Your task to perform on an android device: Search for bose soundsport free on newegg, select the first entry, add it to the cart, then select checkout. Image 0: 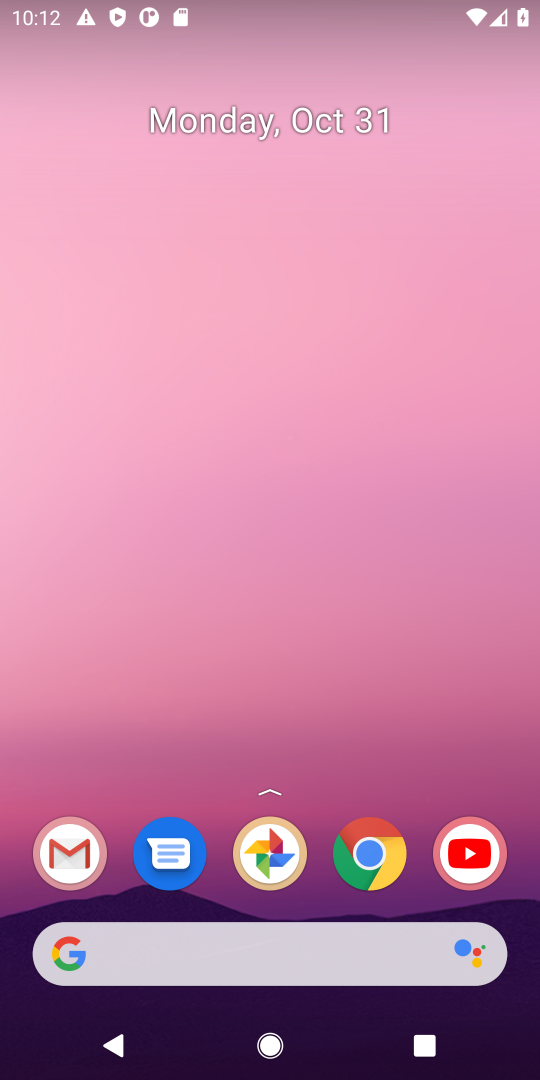
Step 0: click (272, 934)
Your task to perform on an android device: Search for bose soundsport free on newegg, select the first entry, add it to the cart, then select checkout. Image 1: 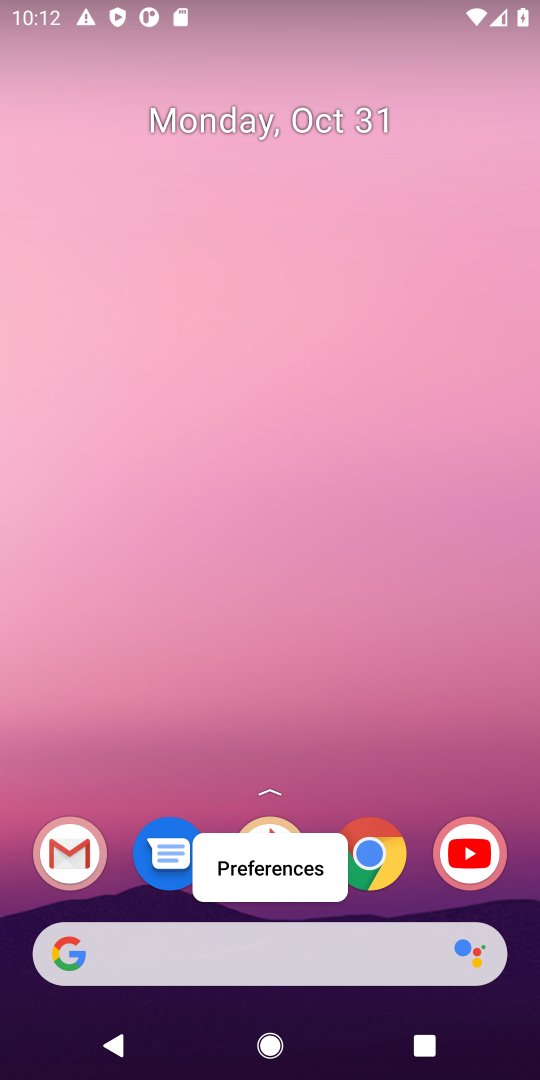
Step 1: click (246, 954)
Your task to perform on an android device: Search for bose soundsport free on newegg, select the first entry, add it to the cart, then select checkout. Image 2: 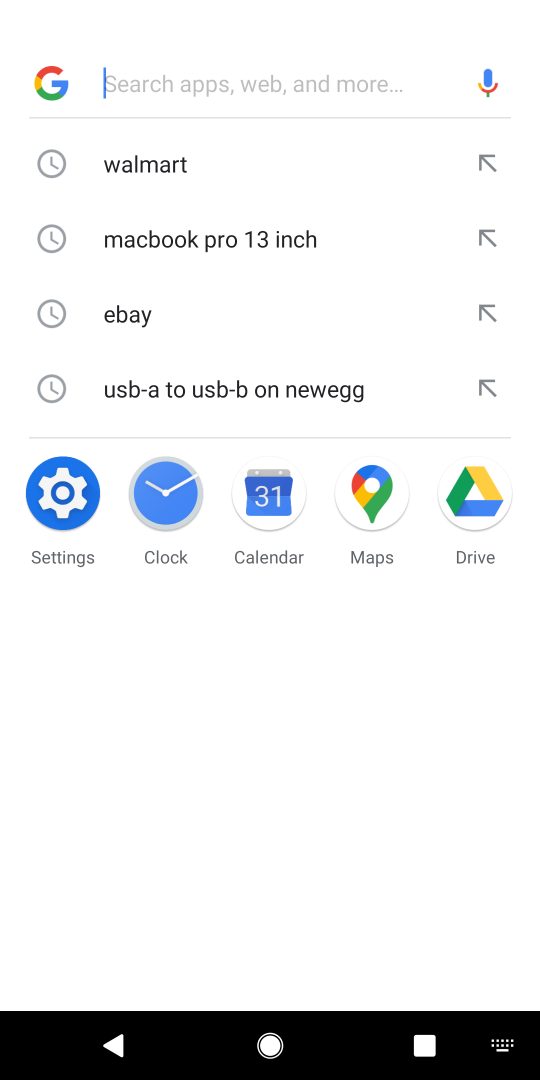
Step 2: type "newegg"
Your task to perform on an android device: Search for bose soundsport free on newegg, select the first entry, add it to the cart, then select checkout. Image 3: 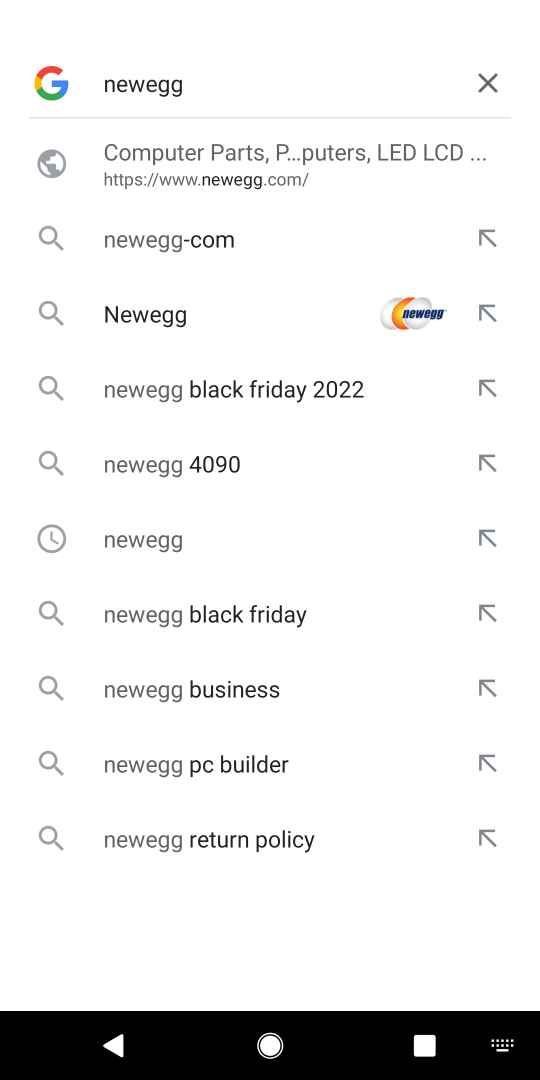
Step 3: type ""
Your task to perform on an android device: Search for bose soundsport free on newegg, select the first entry, add it to the cart, then select checkout. Image 4: 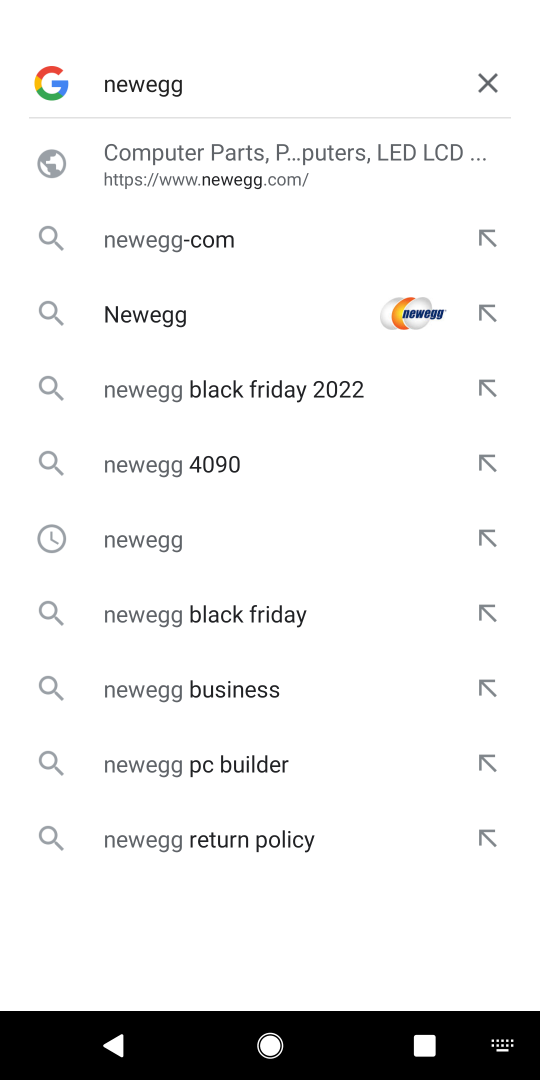
Step 4: press enter
Your task to perform on an android device: Search for bose soundsport free on newegg, select the first entry, add it to the cart, then select checkout. Image 5: 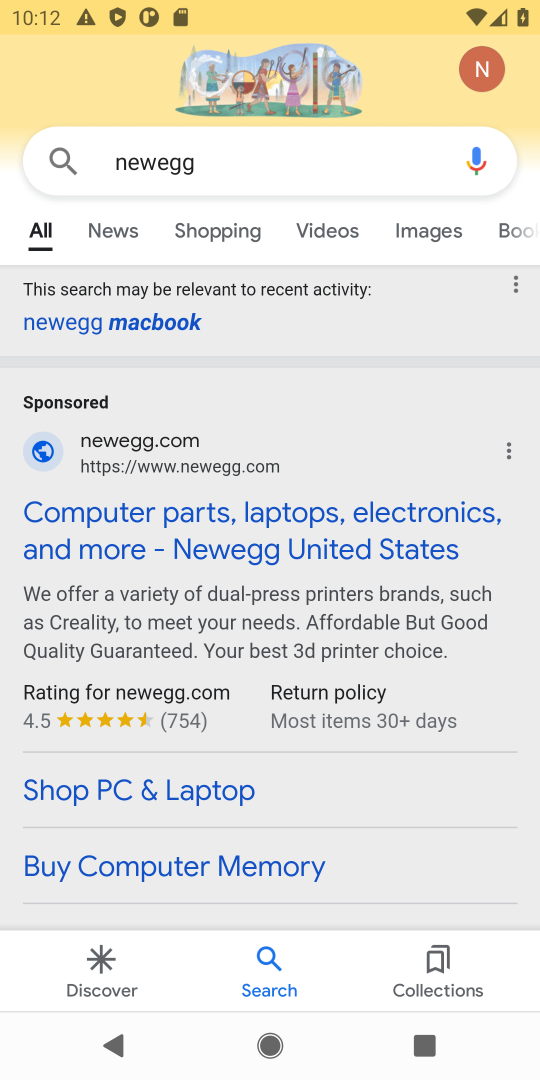
Step 5: click (202, 511)
Your task to perform on an android device: Search for bose soundsport free on newegg, select the first entry, add it to the cart, then select checkout. Image 6: 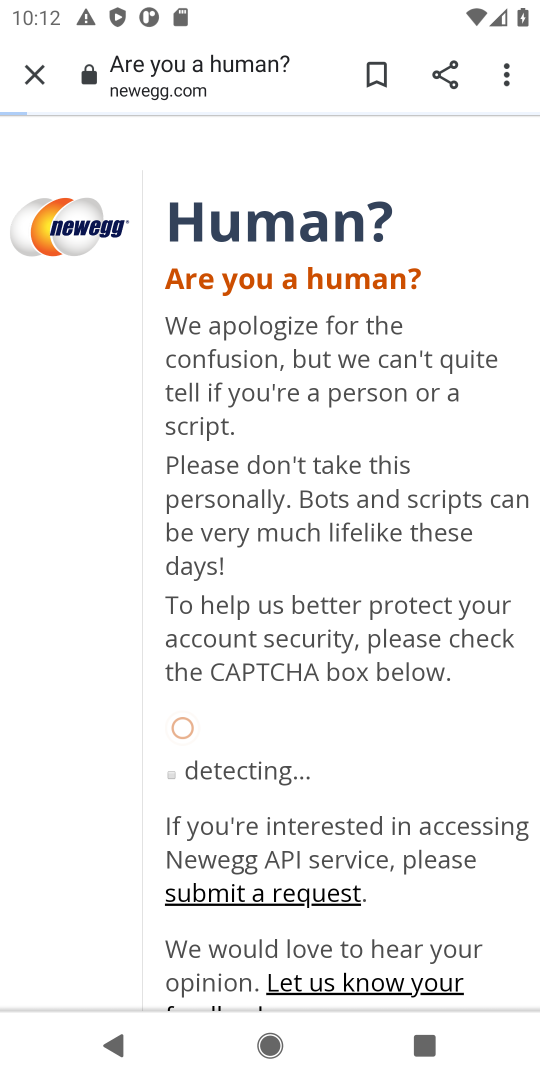
Step 6: click (318, 777)
Your task to perform on an android device: Search for bose soundsport free on newegg, select the first entry, add it to the cart, then select checkout. Image 7: 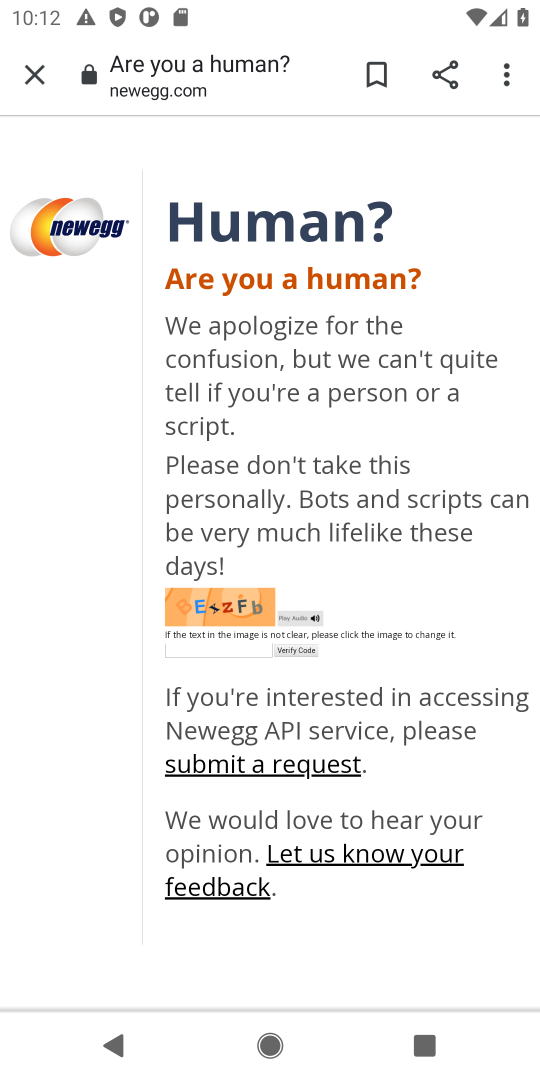
Step 7: click (187, 653)
Your task to perform on an android device: Search for bose soundsport free on newegg, select the first entry, add it to the cart, then select checkout. Image 8: 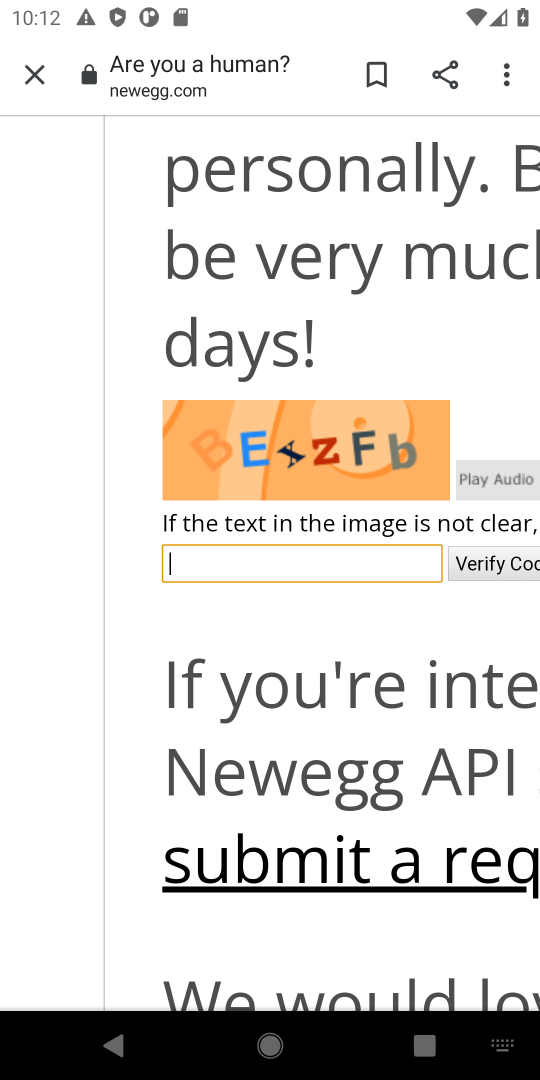
Step 8: click (252, 556)
Your task to perform on an android device: Search for bose soundsport free on newegg, select the first entry, add it to the cart, then select checkout. Image 9: 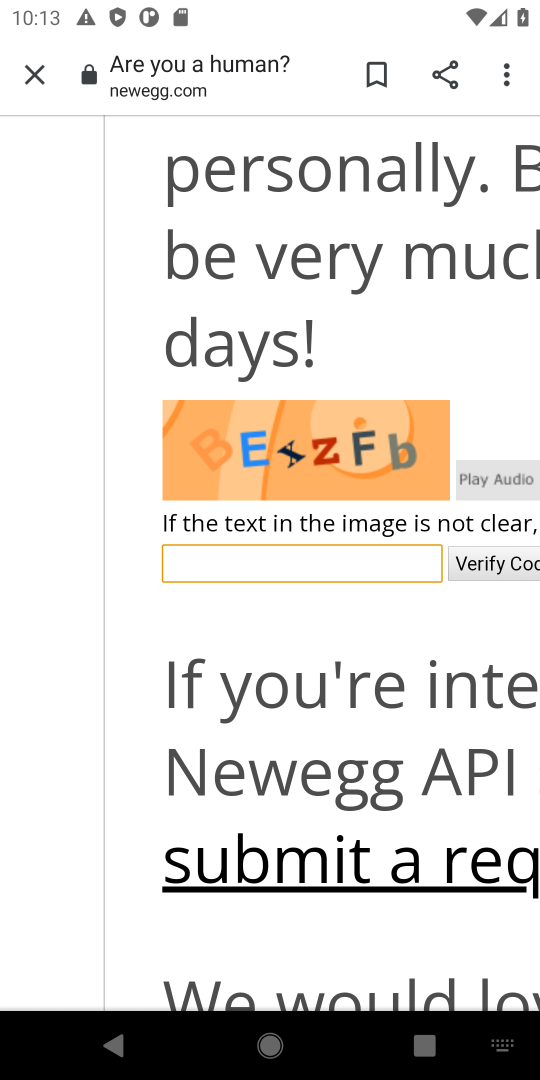
Step 9: type "ExzFb"
Your task to perform on an android device: Search for bose soundsport free on newegg, select the first entry, add it to the cart, then select checkout. Image 10: 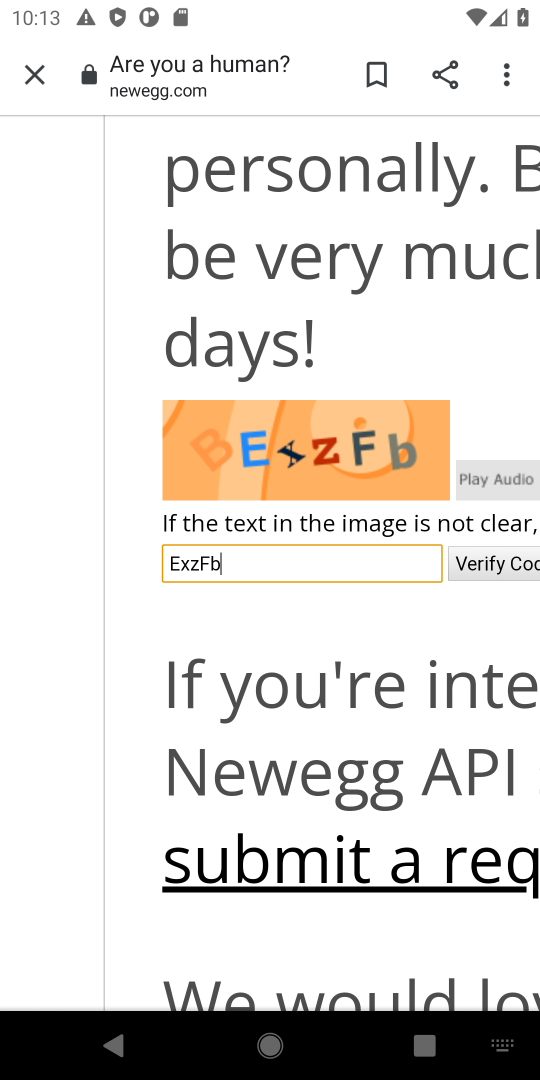
Step 10: type ""
Your task to perform on an android device: Search for bose soundsport free on newegg, select the first entry, add it to the cart, then select checkout. Image 11: 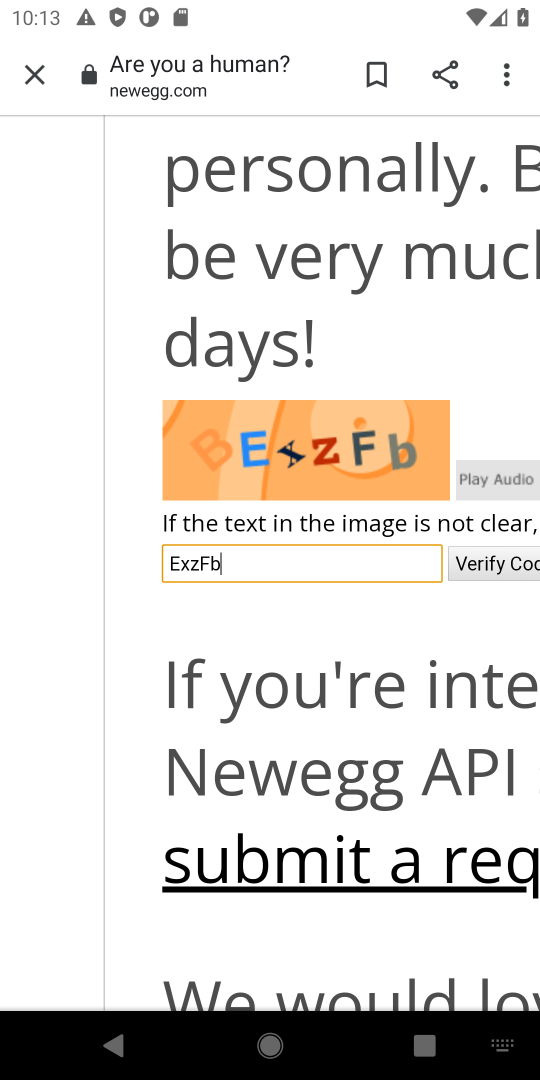
Step 11: click (471, 566)
Your task to perform on an android device: Search for bose soundsport free on newegg, select the first entry, add it to the cart, then select checkout. Image 12: 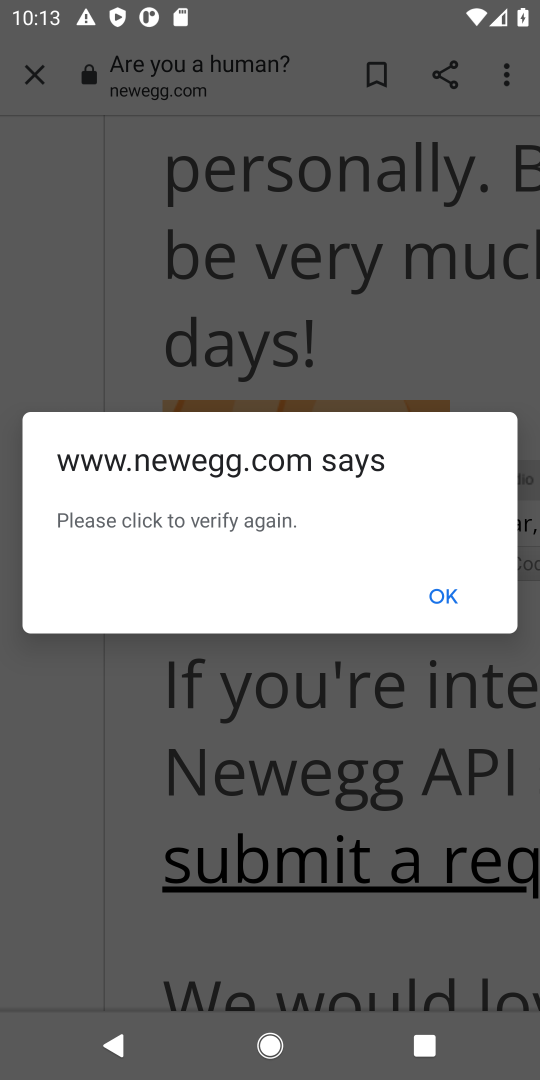
Step 12: click (448, 603)
Your task to perform on an android device: Search for bose soundsport free on newegg, select the first entry, add it to the cart, then select checkout. Image 13: 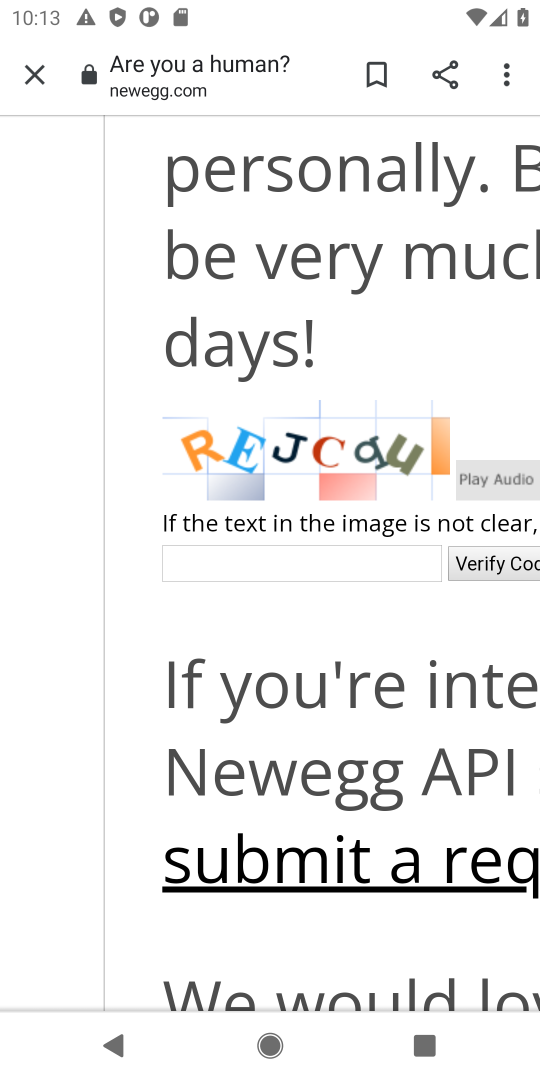
Step 13: click (446, 599)
Your task to perform on an android device: Search for bose soundsport free on newegg, select the first entry, add it to the cart, then select checkout. Image 14: 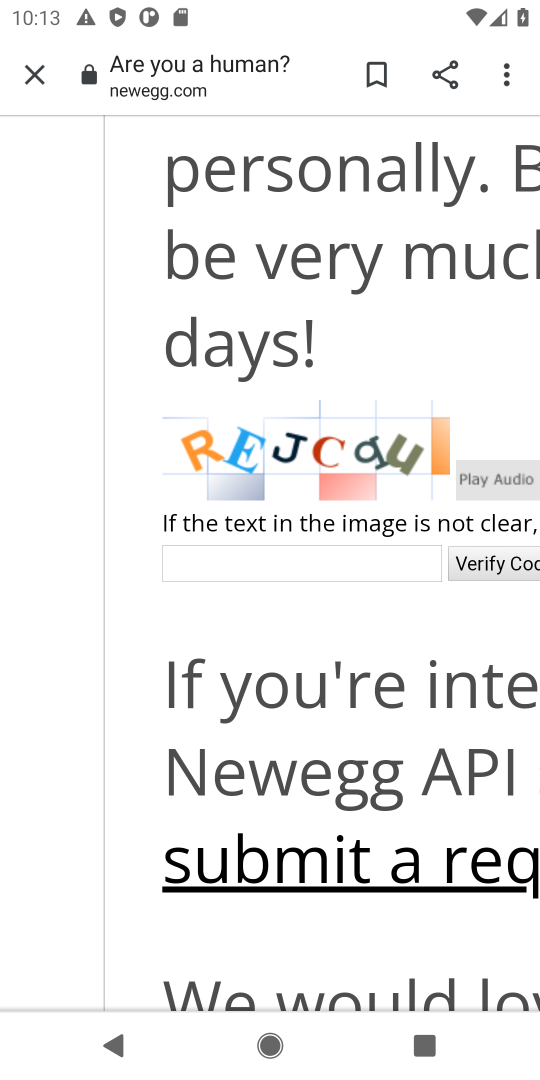
Step 14: click (293, 578)
Your task to perform on an android device: Search for bose soundsport free on newegg, select the first entry, add it to the cart, then select checkout. Image 15: 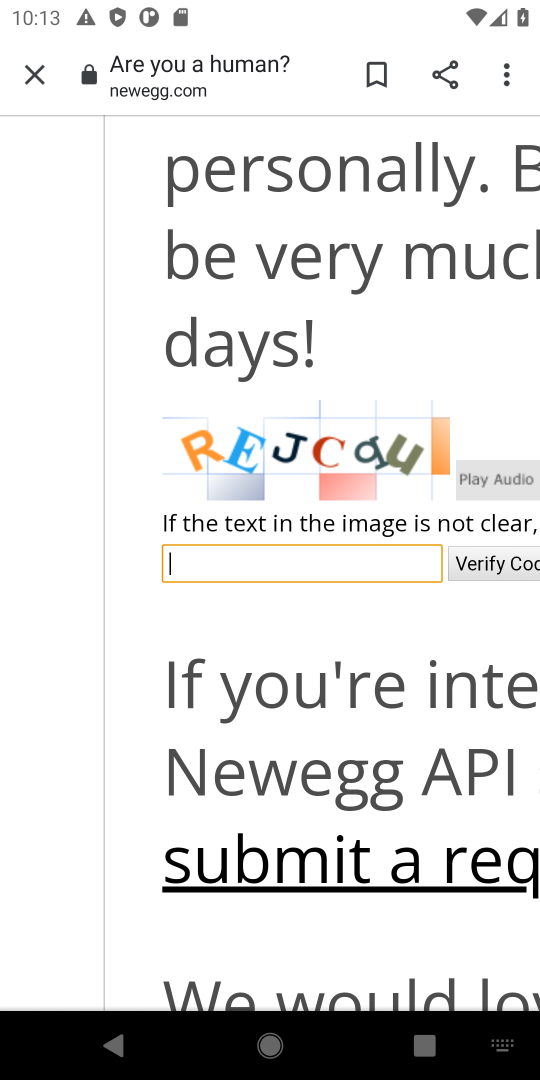
Step 15: click (244, 494)
Your task to perform on an android device: Search for bose soundsport free on newegg, select the first entry, add it to the cart, then select checkout. Image 16: 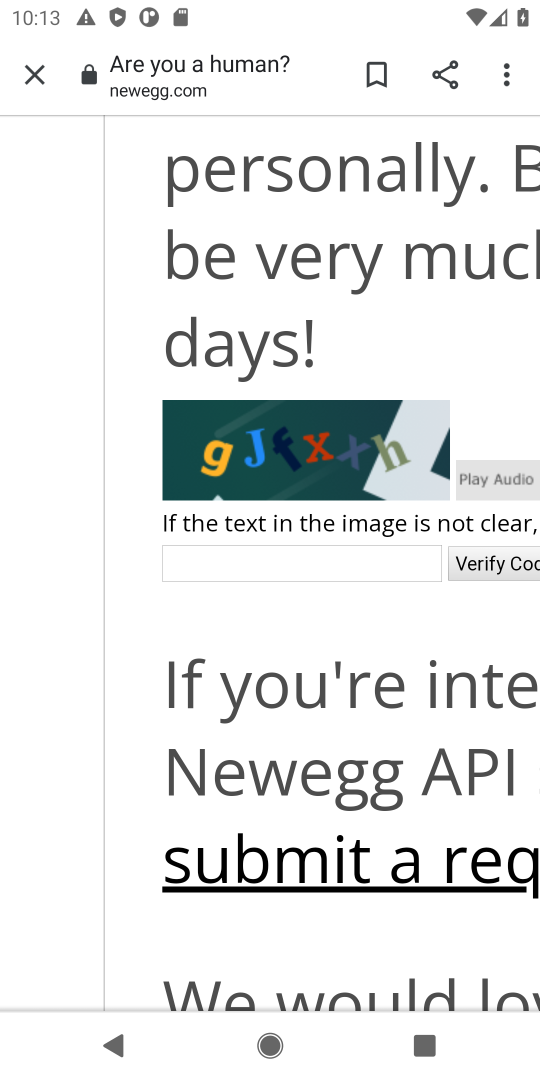
Step 16: click (353, 445)
Your task to perform on an android device: Search for bose soundsport free on newegg, select the first entry, add it to the cart, then select checkout. Image 17: 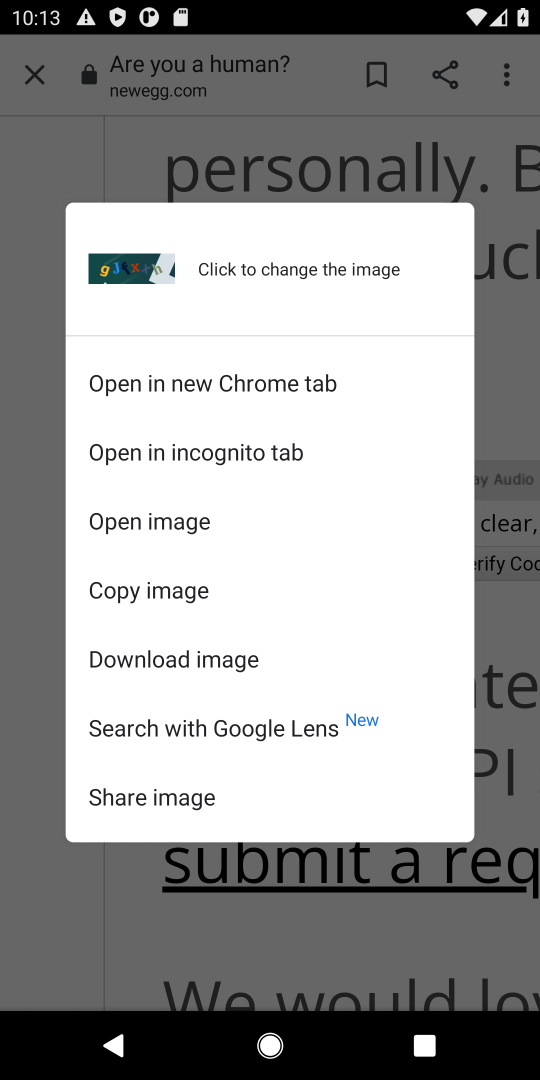
Step 17: click (492, 599)
Your task to perform on an android device: Search for bose soundsport free on newegg, select the first entry, add it to the cart, then select checkout. Image 18: 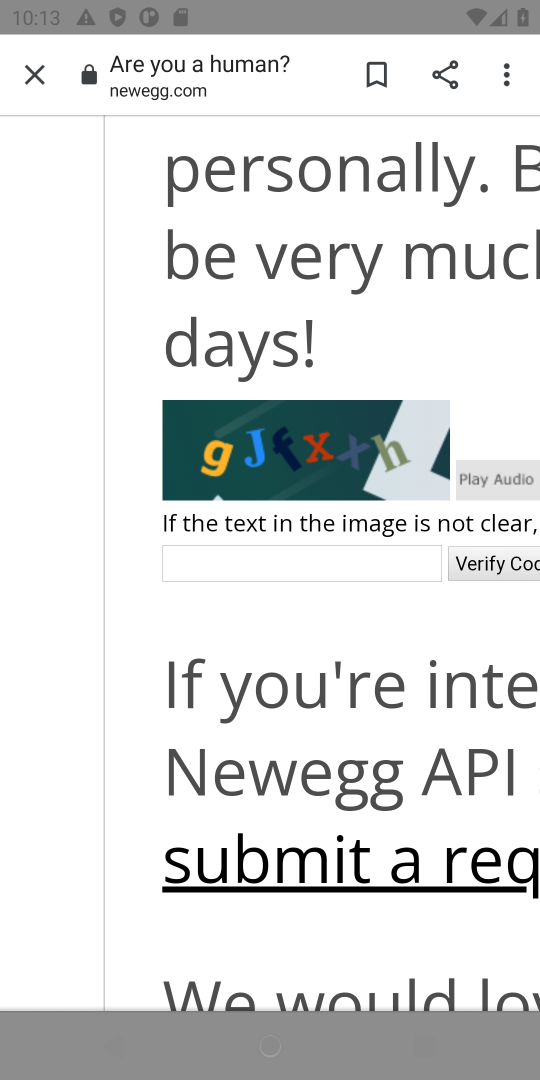
Step 18: click (493, 599)
Your task to perform on an android device: Search for bose soundsport free on newegg, select the first entry, add it to the cart, then select checkout. Image 19: 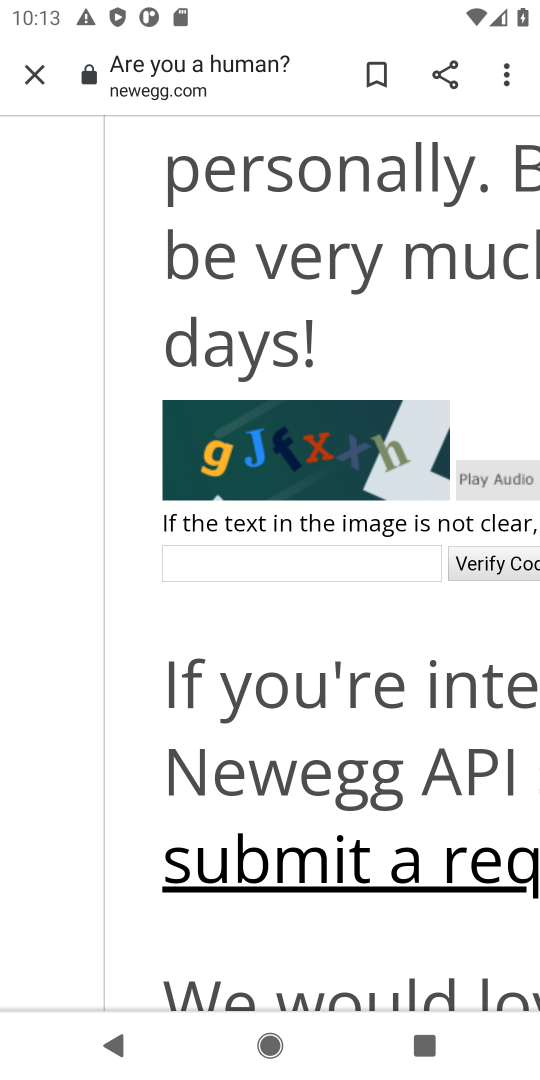
Step 19: click (273, 572)
Your task to perform on an android device: Search for bose soundsport free on newegg, select the first entry, add it to the cart, then select checkout. Image 20: 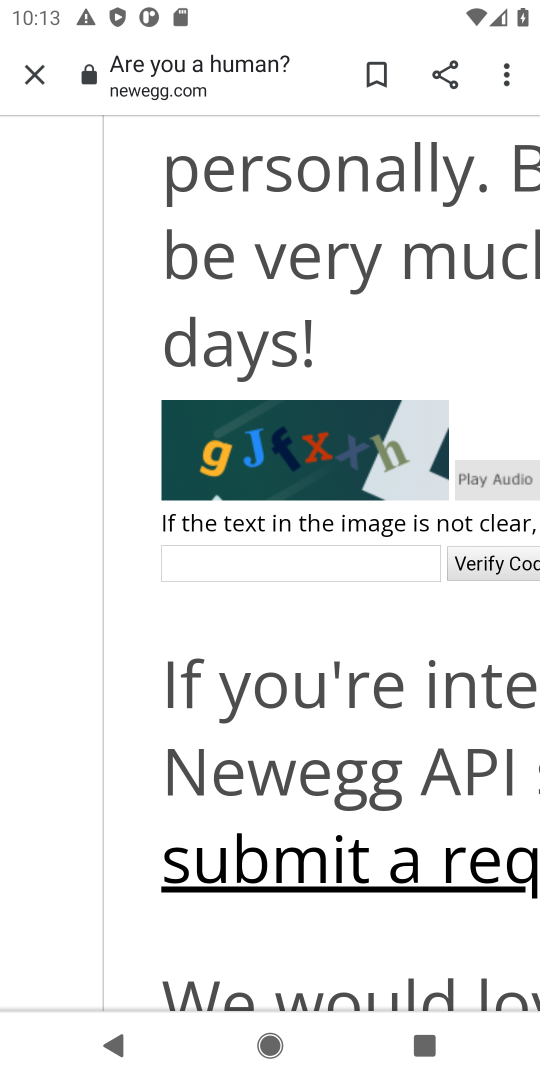
Step 20: click (257, 566)
Your task to perform on an android device: Search for bose soundsport free on newegg, select the first entry, add it to the cart, then select checkout. Image 21: 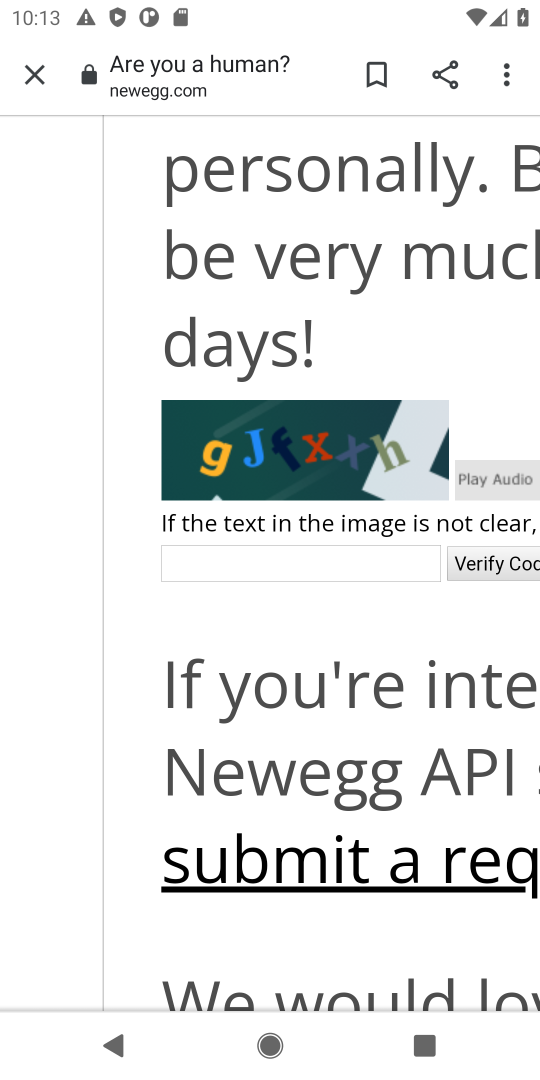
Step 21: click (257, 567)
Your task to perform on an android device: Search for bose soundsport free on newegg, select the first entry, add it to the cart, then select checkout. Image 22: 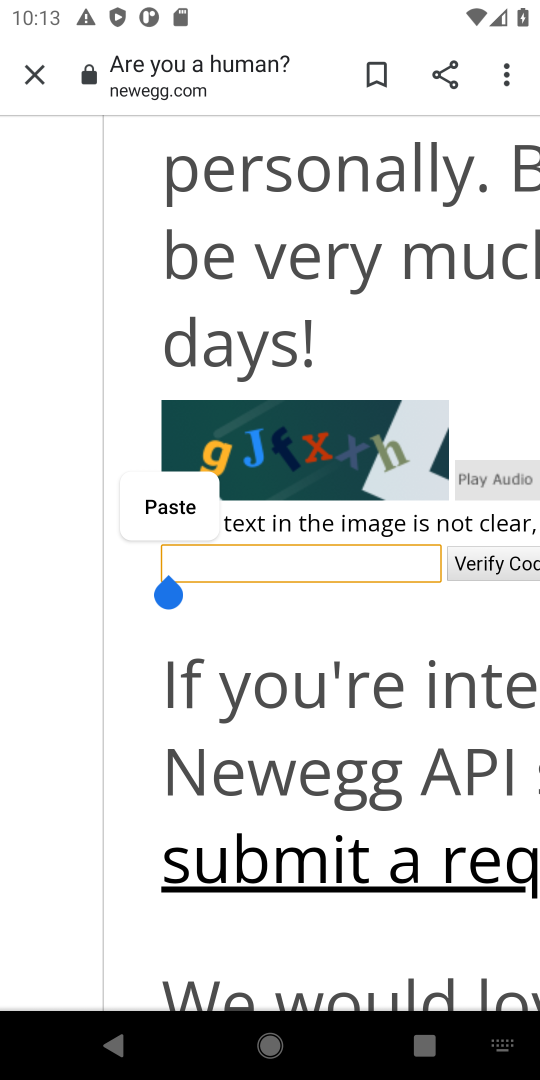
Step 22: type "gJfXxh"
Your task to perform on an android device: Search for bose soundsport free on newegg, select the first entry, add it to the cart, then select checkout. Image 23: 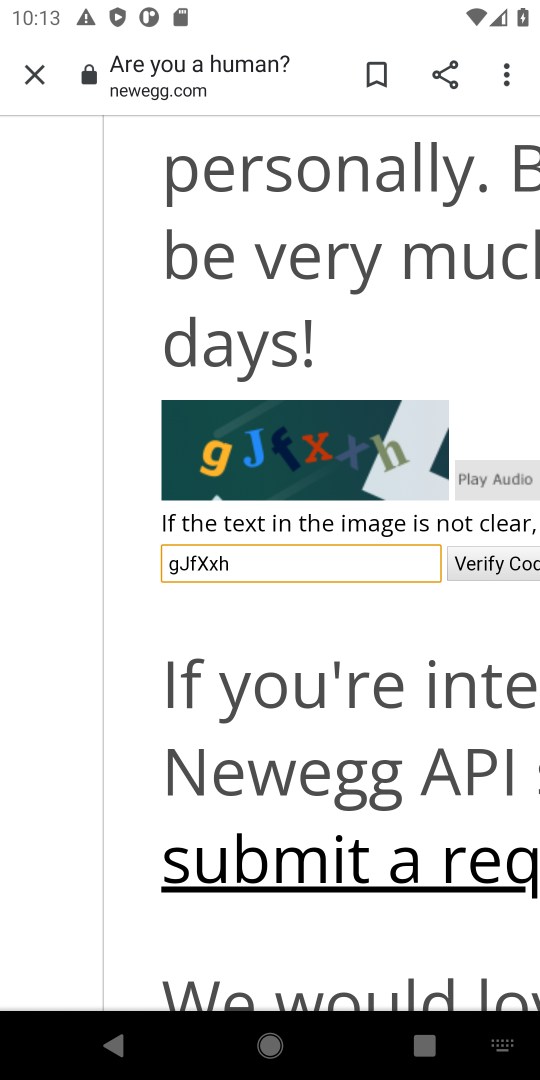
Step 23: type ""
Your task to perform on an android device: Search for bose soundsport free on newegg, select the first entry, add it to the cart, then select checkout. Image 24: 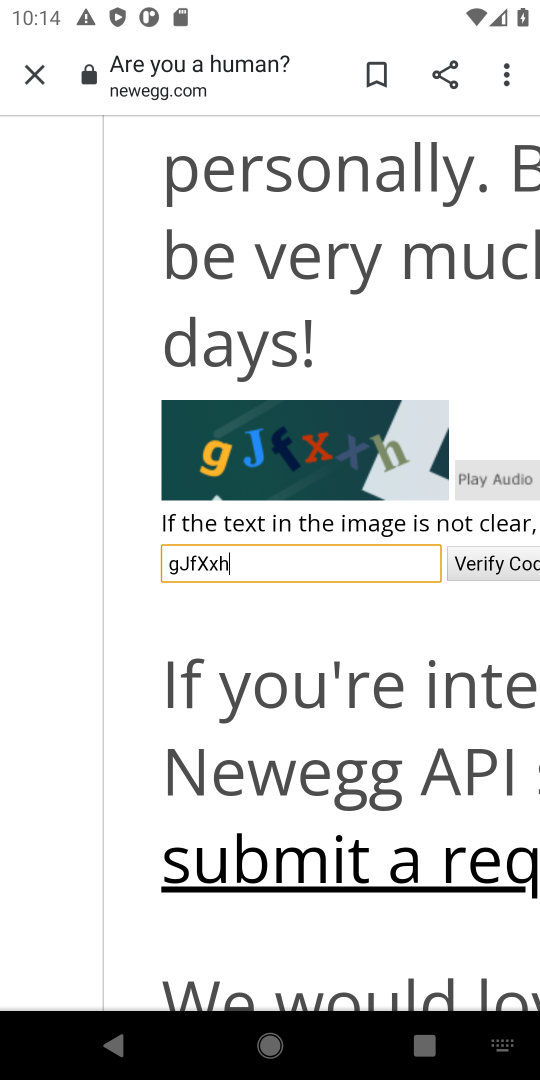
Step 24: click (488, 566)
Your task to perform on an android device: Search for bose soundsport free on newegg, select the first entry, add it to the cart, then select checkout. Image 25: 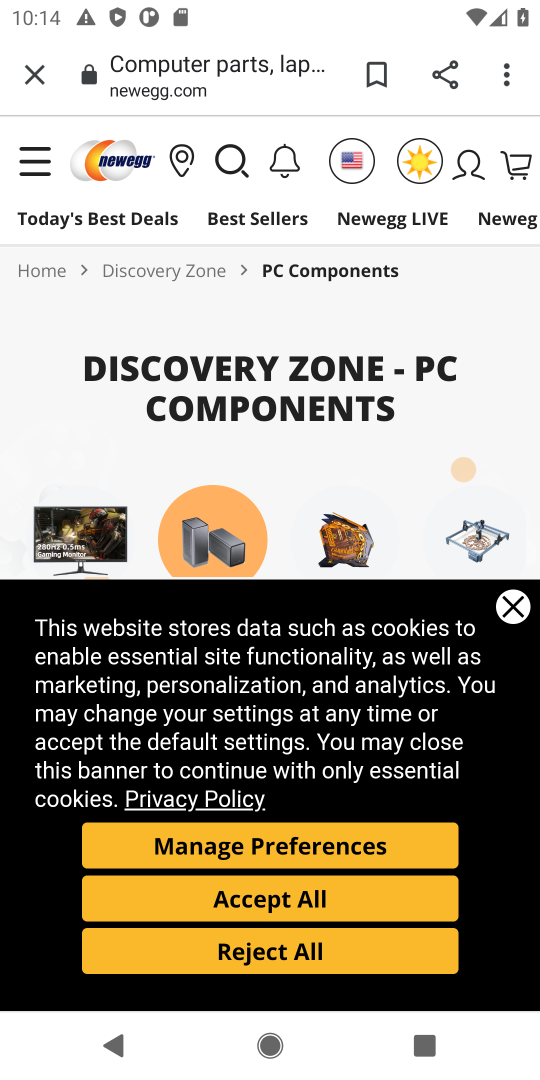
Step 25: click (283, 947)
Your task to perform on an android device: Search for bose soundsport free on newegg, select the first entry, add it to the cart, then select checkout. Image 26: 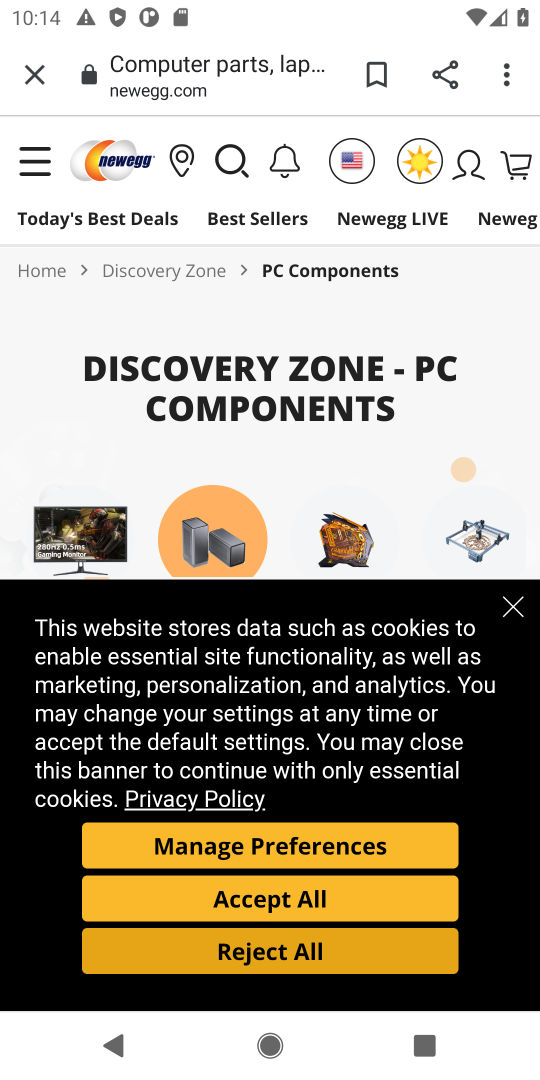
Step 26: click (283, 947)
Your task to perform on an android device: Search for bose soundsport free on newegg, select the first entry, add it to the cart, then select checkout. Image 27: 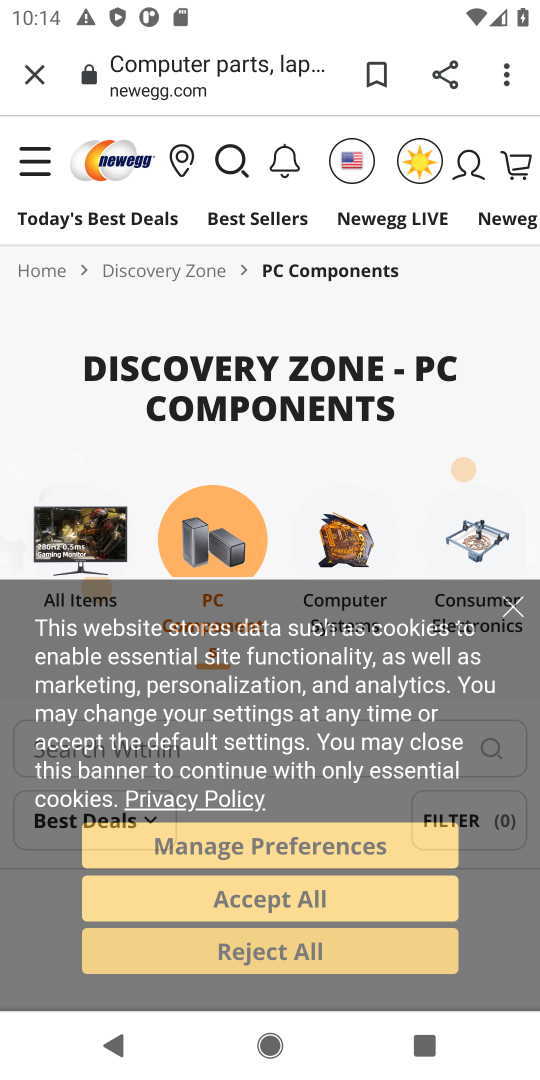
Step 27: click (283, 947)
Your task to perform on an android device: Search for bose soundsport free on newegg, select the first entry, add it to the cart, then select checkout. Image 28: 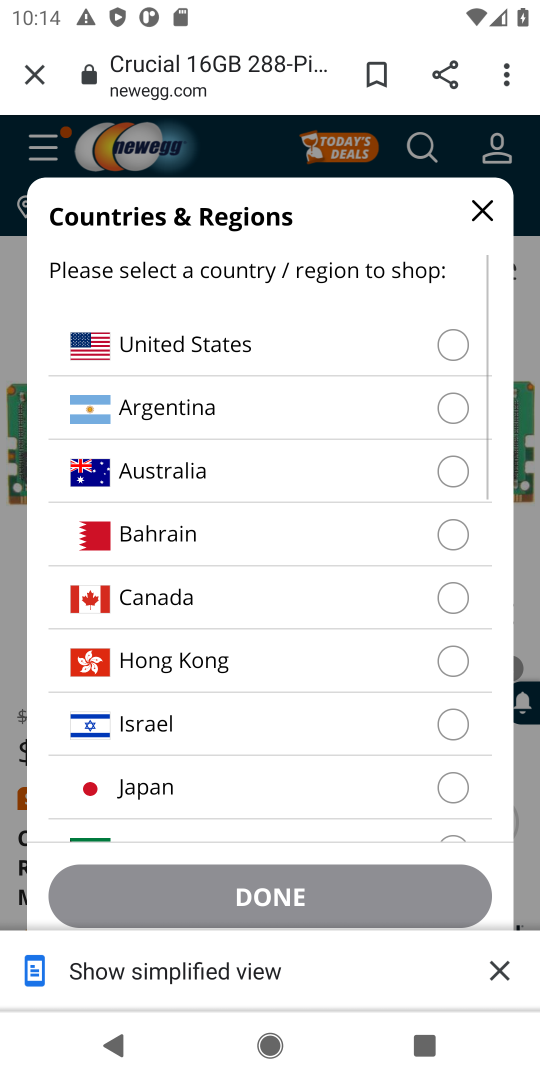
Step 28: click (511, 974)
Your task to perform on an android device: Search for bose soundsport free on newegg, select the first entry, add it to the cart, then select checkout. Image 29: 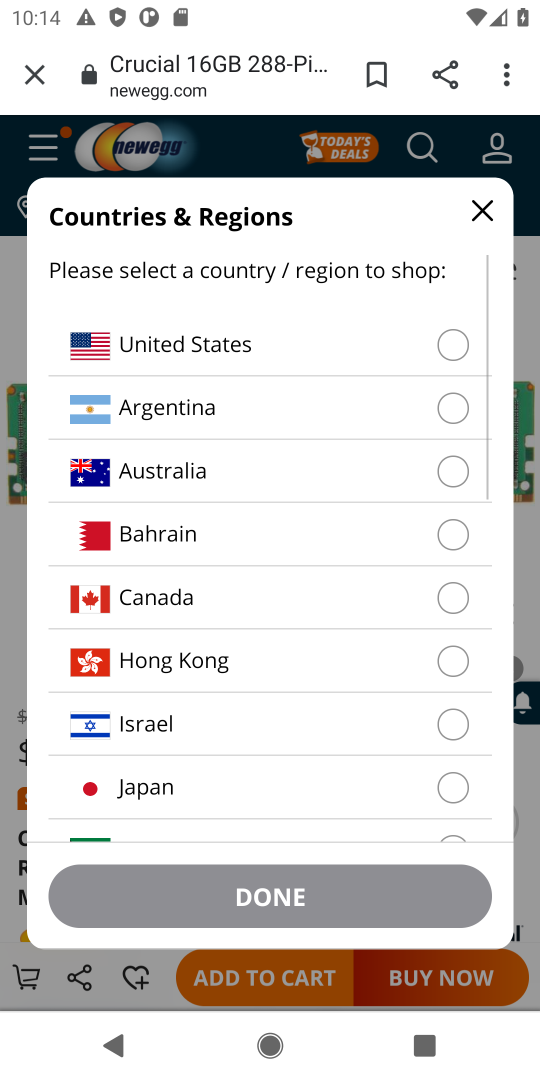
Step 29: click (451, 350)
Your task to perform on an android device: Search for bose soundsport free on newegg, select the first entry, add it to the cart, then select checkout. Image 30: 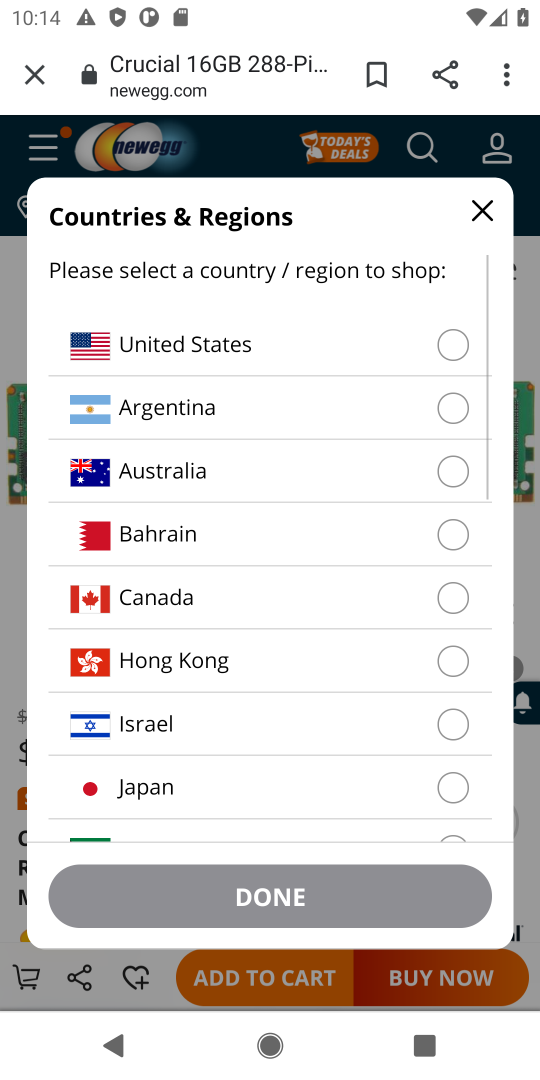
Step 30: click (451, 349)
Your task to perform on an android device: Search for bose soundsport free on newegg, select the first entry, add it to the cart, then select checkout. Image 31: 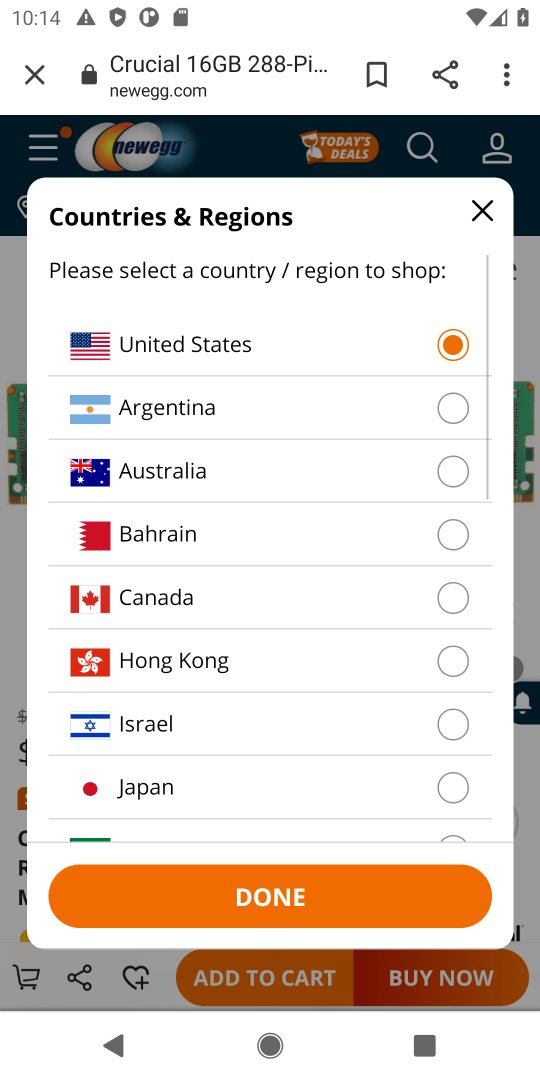
Step 31: click (342, 901)
Your task to perform on an android device: Search for bose soundsport free on newegg, select the first entry, add it to the cart, then select checkout. Image 32: 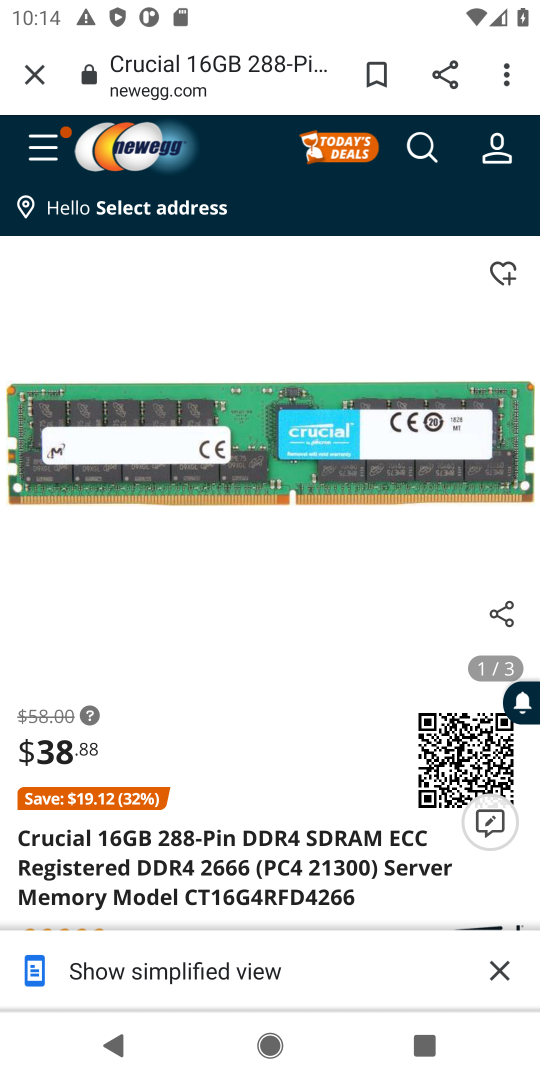
Step 32: click (495, 969)
Your task to perform on an android device: Search for bose soundsport free on newegg, select the first entry, add it to the cart, then select checkout. Image 33: 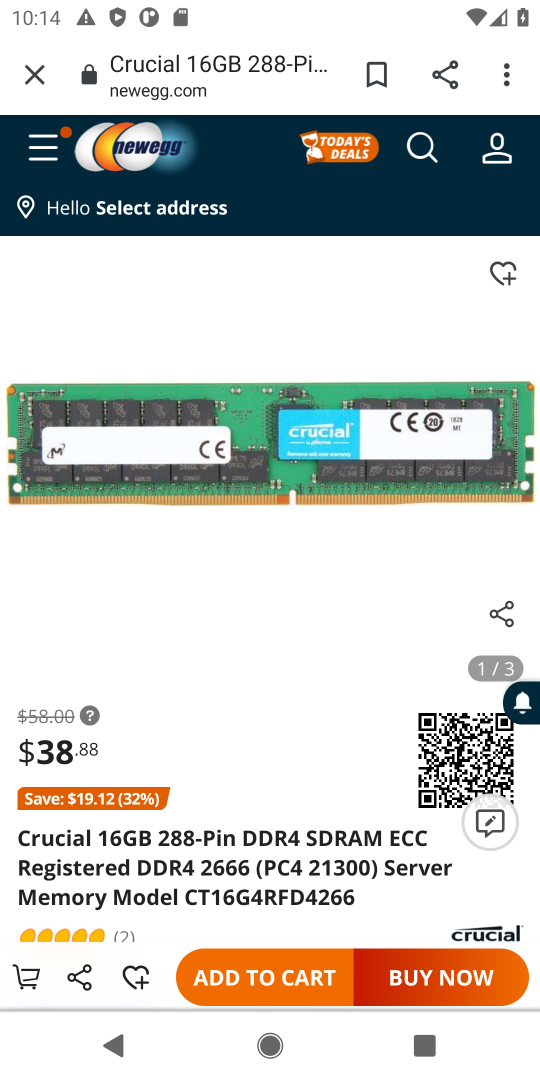
Step 33: click (235, 984)
Your task to perform on an android device: Search for bose soundsport free on newegg, select the first entry, add it to the cart, then select checkout. Image 34: 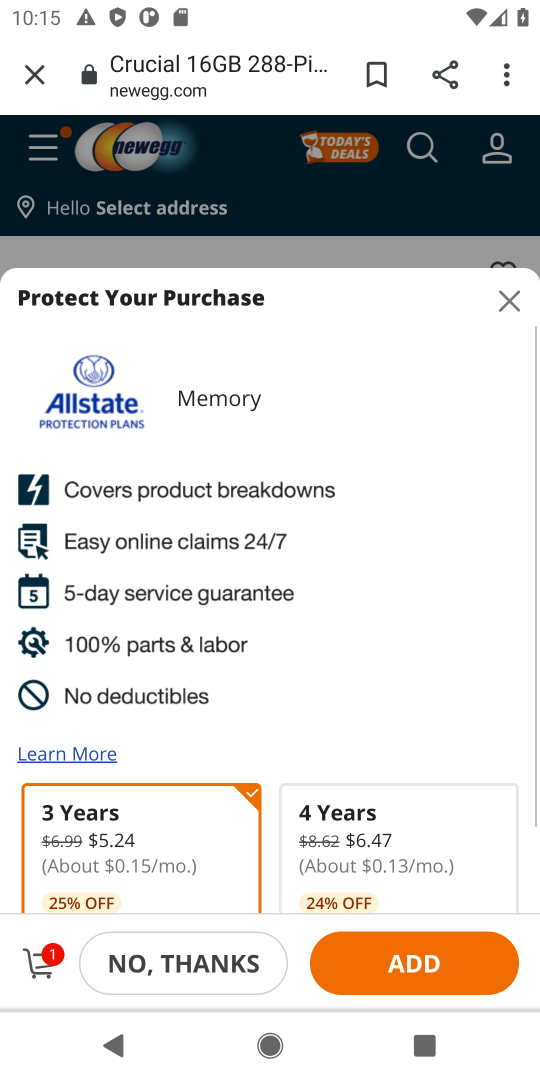
Step 34: task complete